Your task to perform on an android device: Go to calendar. Show me events next week Image 0: 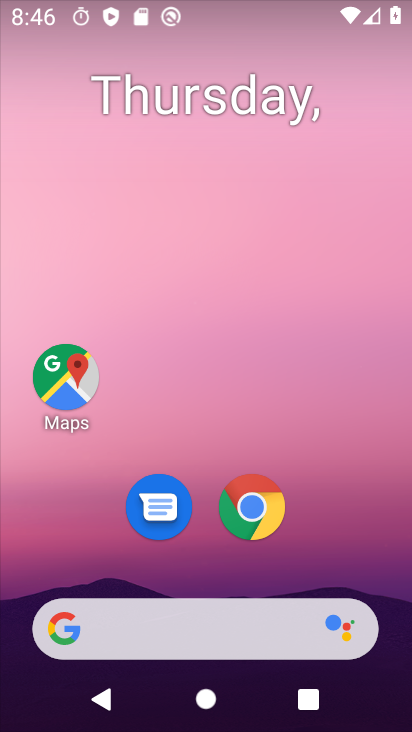
Step 0: drag from (211, 393) to (263, 0)
Your task to perform on an android device: Go to calendar. Show me events next week Image 1: 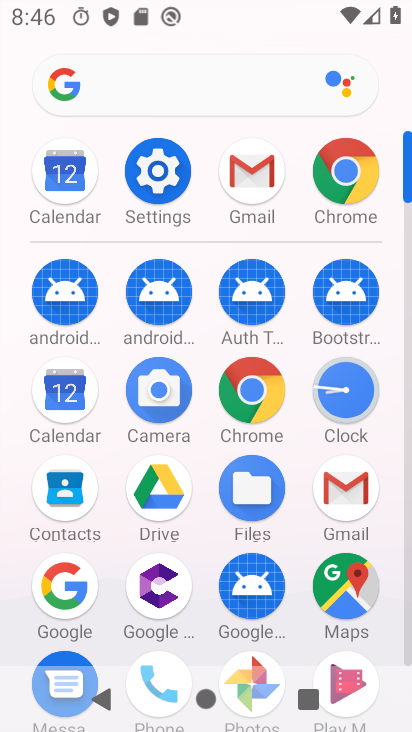
Step 1: click (66, 405)
Your task to perform on an android device: Go to calendar. Show me events next week Image 2: 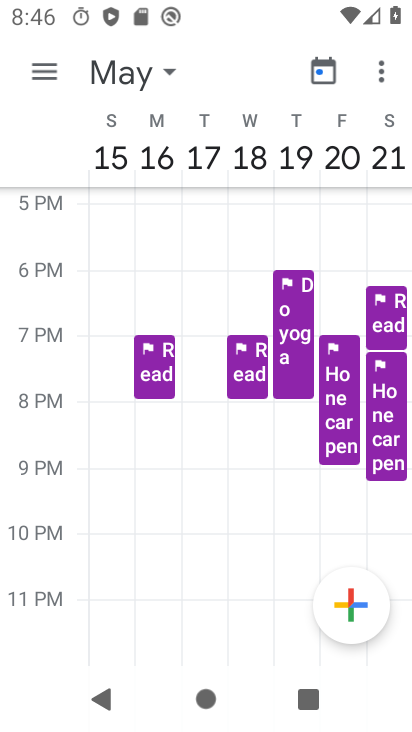
Step 2: task complete